Your task to perform on an android device: Open Reddit.com Image 0: 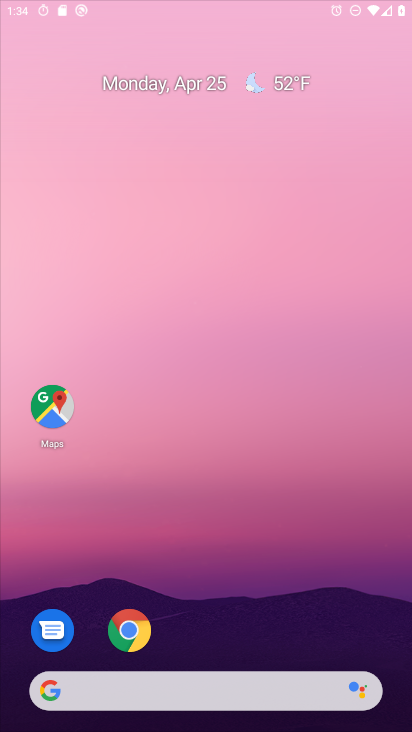
Step 0: click (252, 66)
Your task to perform on an android device: Open Reddit.com Image 1: 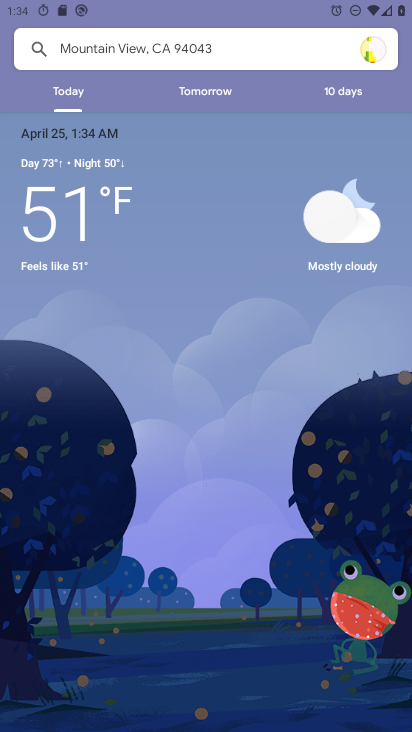
Step 1: press home button
Your task to perform on an android device: Open Reddit.com Image 2: 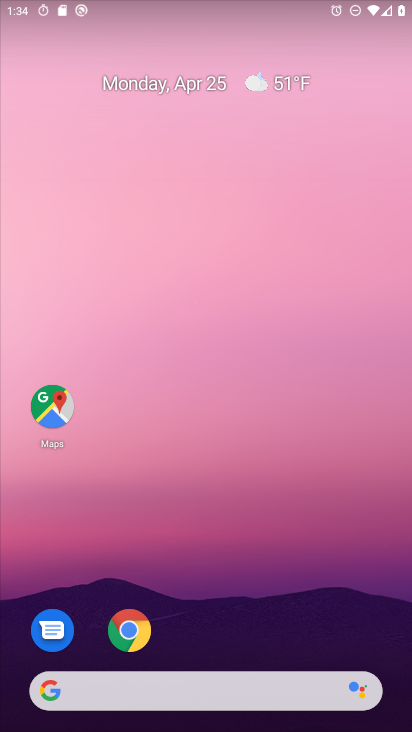
Step 2: drag from (192, 618) to (261, 204)
Your task to perform on an android device: Open Reddit.com Image 3: 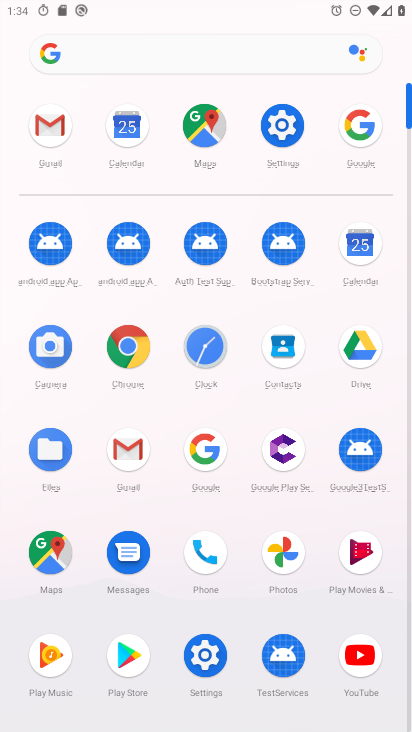
Step 3: click (233, 59)
Your task to perform on an android device: Open Reddit.com Image 4: 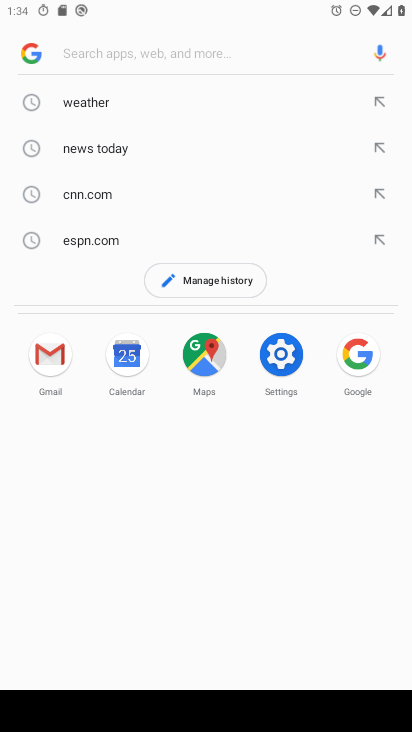
Step 4: type "reddit.com"
Your task to perform on an android device: Open Reddit.com Image 5: 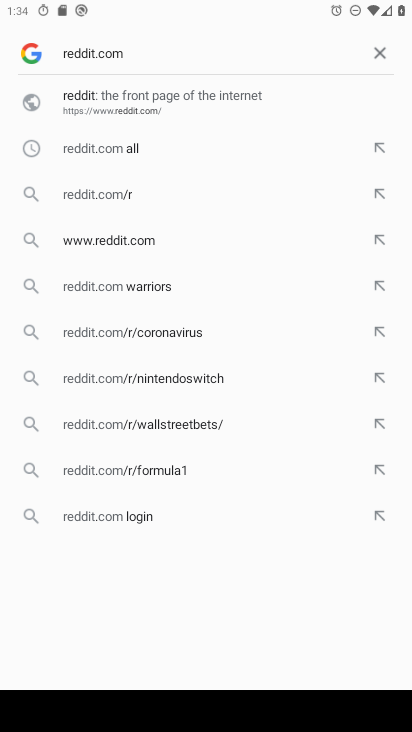
Step 5: click (123, 107)
Your task to perform on an android device: Open Reddit.com Image 6: 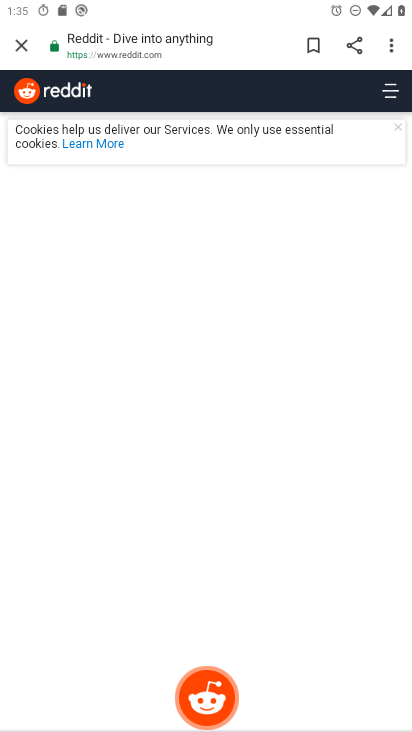
Step 6: task complete